Your task to perform on an android device: What's on my calendar tomorrow? Image 0: 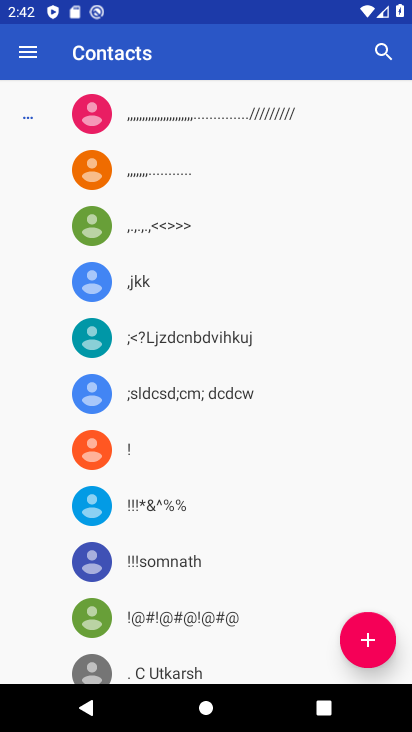
Step 0: press home button
Your task to perform on an android device: What's on my calendar tomorrow? Image 1: 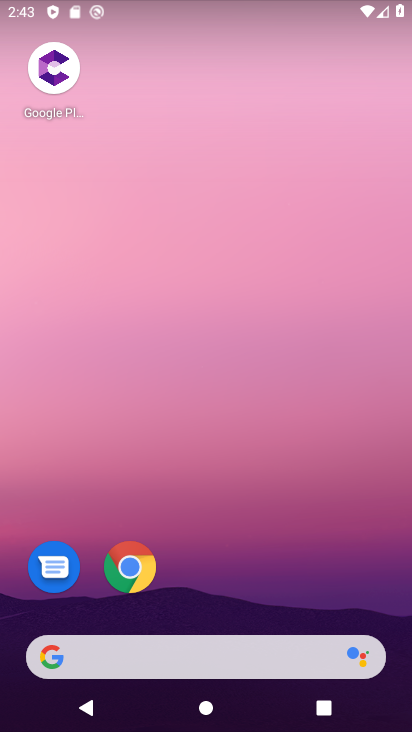
Step 1: drag from (284, 526) to (266, 94)
Your task to perform on an android device: What's on my calendar tomorrow? Image 2: 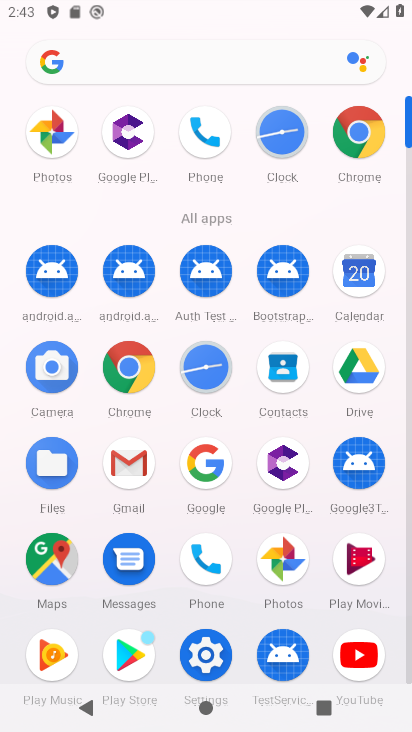
Step 2: click (366, 258)
Your task to perform on an android device: What's on my calendar tomorrow? Image 3: 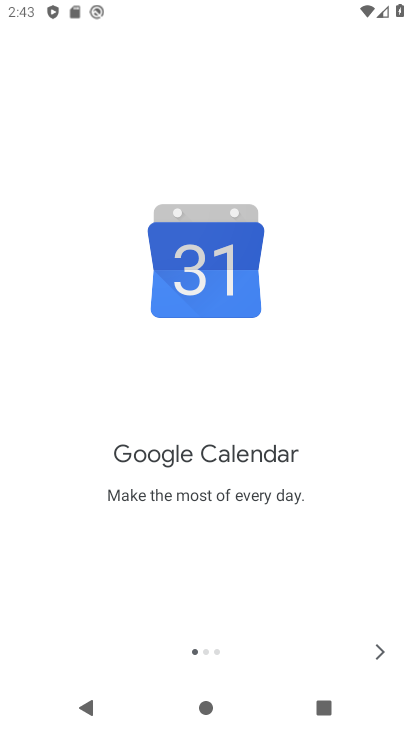
Step 3: click (382, 653)
Your task to perform on an android device: What's on my calendar tomorrow? Image 4: 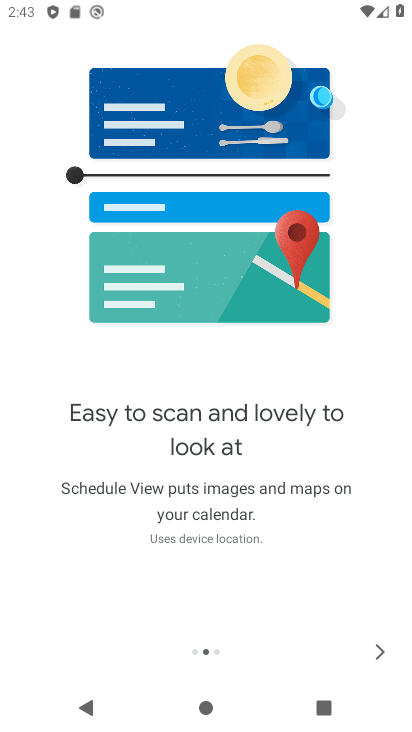
Step 4: click (382, 653)
Your task to perform on an android device: What's on my calendar tomorrow? Image 5: 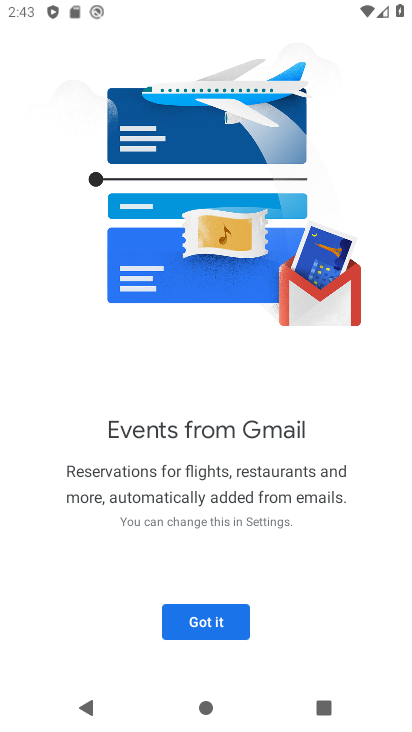
Step 5: click (229, 624)
Your task to perform on an android device: What's on my calendar tomorrow? Image 6: 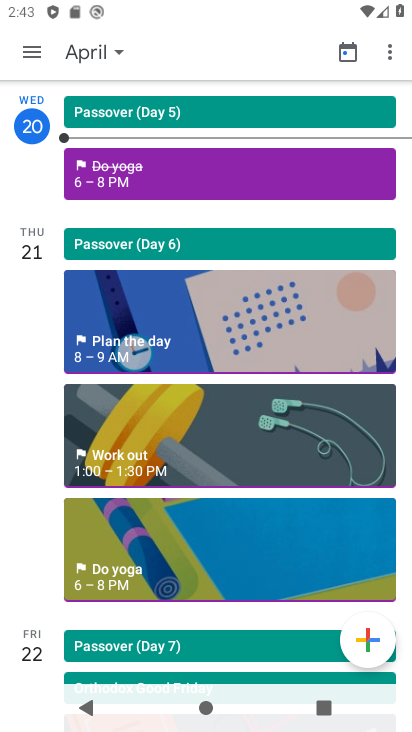
Step 6: click (124, 54)
Your task to perform on an android device: What's on my calendar tomorrow? Image 7: 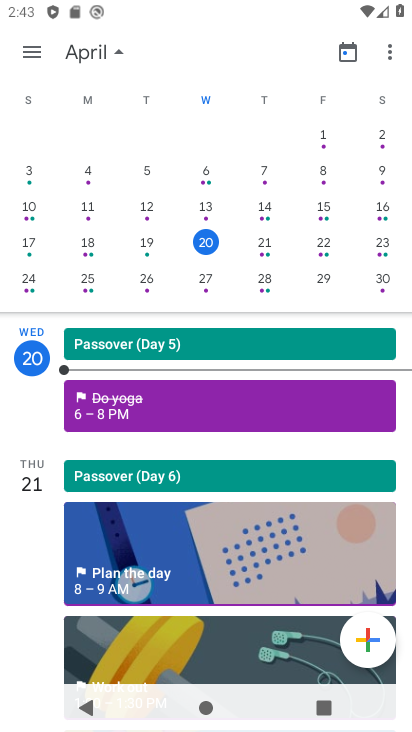
Step 7: click (266, 246)
Your task to perform on an android device: What's on my calendar tomorrow? Image 8: 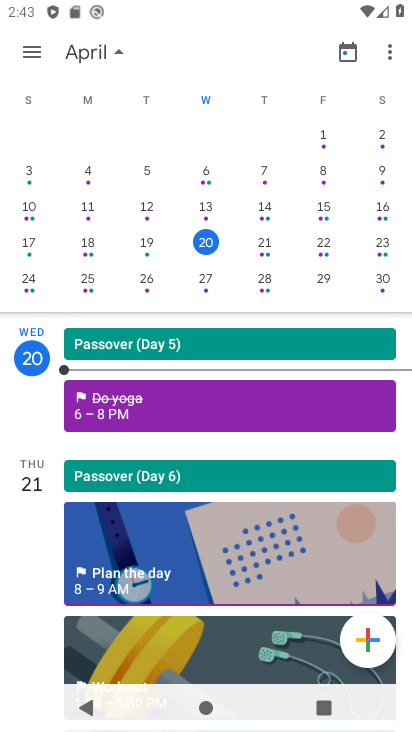
Step 8: click (261, 238)
Your task to perform on an android device: What's on my calendar tomorrow? Image 9: 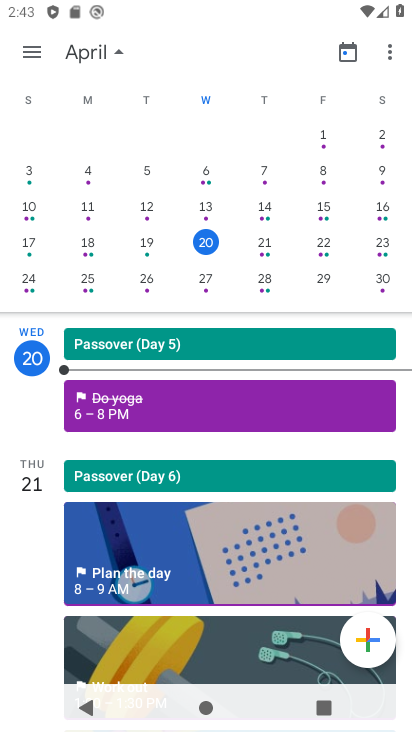
Step 9: click (266, 248)
Your task to perform on an android device: What's on my calendar tomorrow? Image 10: 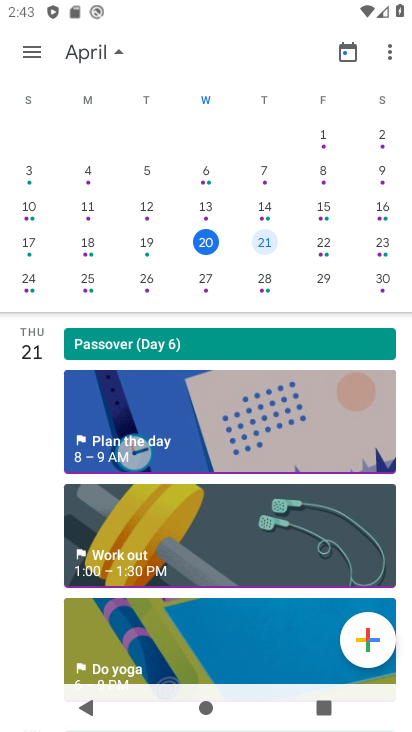
Step 10: click (105, 50)
Your task to perform on an android device: What's on my calendar tomorrow? Image 11: 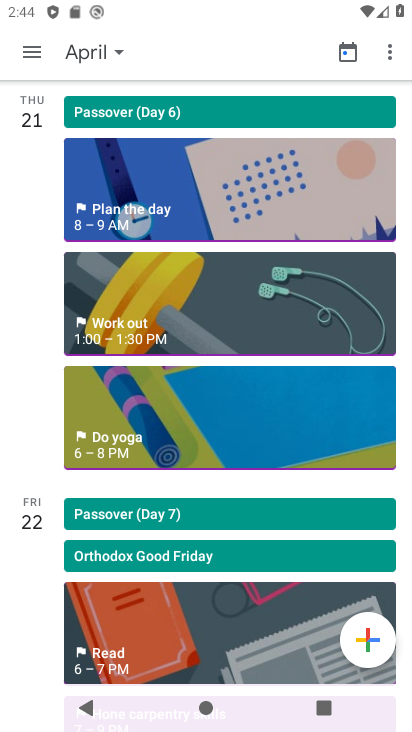
Step 11: task complete